Your task to perform on an android device: Empty the shopping cart on newegg. Add "macbook pro 13 inch" to the cart on newegg Image 0: 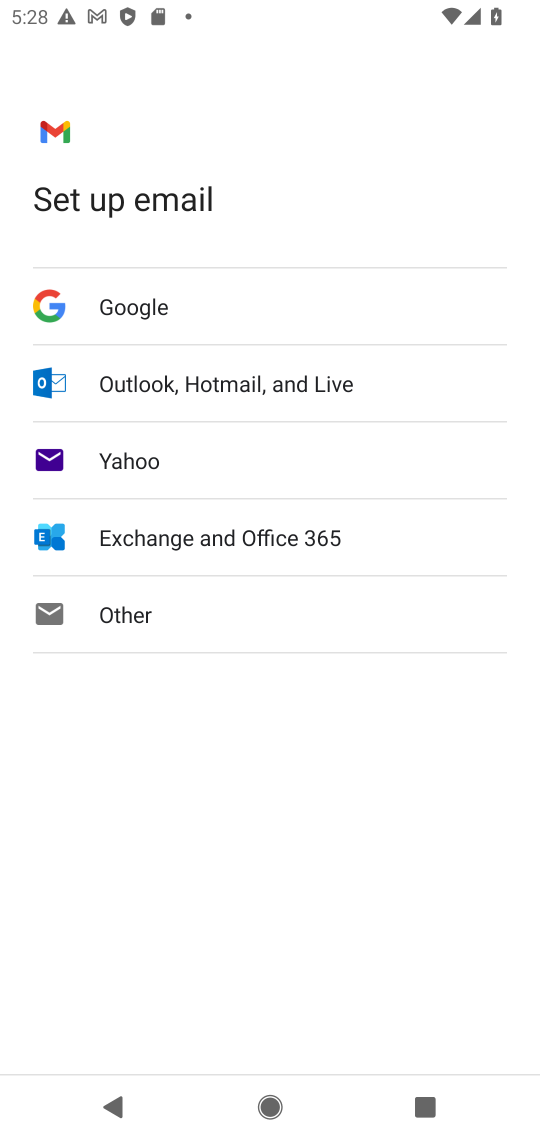
Step 0: press home button
Your task to perform on an android device: Empty the shopping cart on newegg. Add "macbook pro 13 inch" to the cart on newegg Image 1: 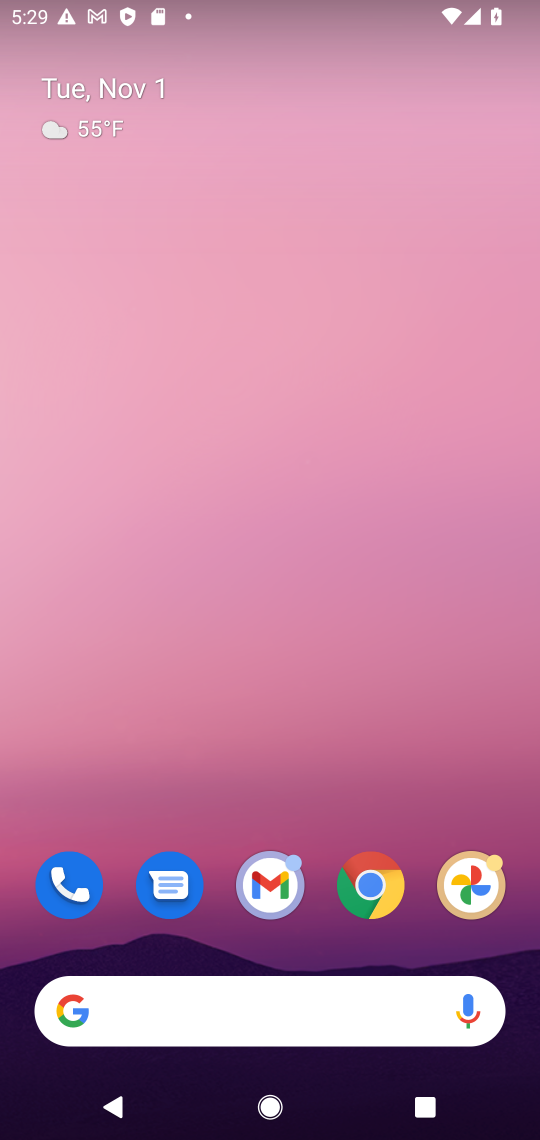
Step 1: click (369, 886)
Your task to perform on an android device: Empty the shopping cart on newegg. Add "macbook pro 13 inch" to the cart on newegg Image 2: 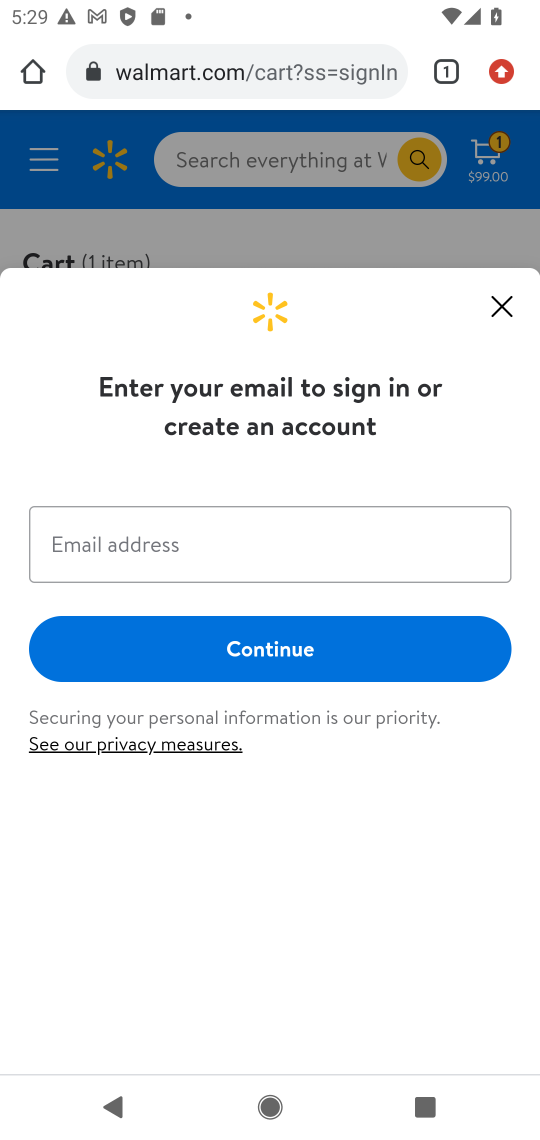
Step 2: click (261, 48)
Your task to perform on an android device: Empty the shopping cart on newegg. Add "macbook pro 13 inch" to the cart on newegg Image 3: 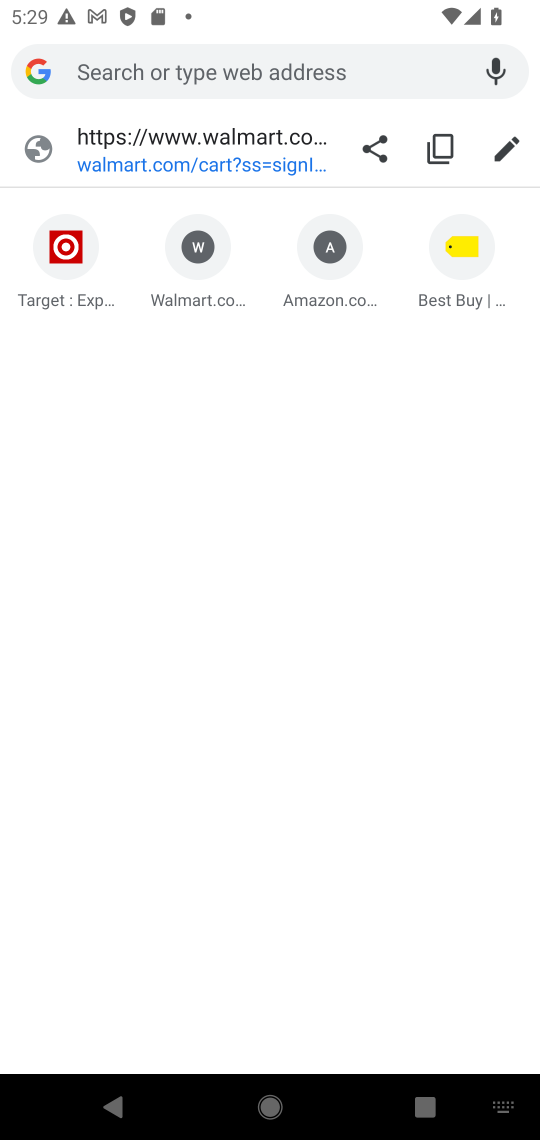
Step 3: type "newegg"
Your task to perform on an android device: Empty the shopping cart on newegg. Add "macbook pro 13 inch" to the cart on newegg Image 4: 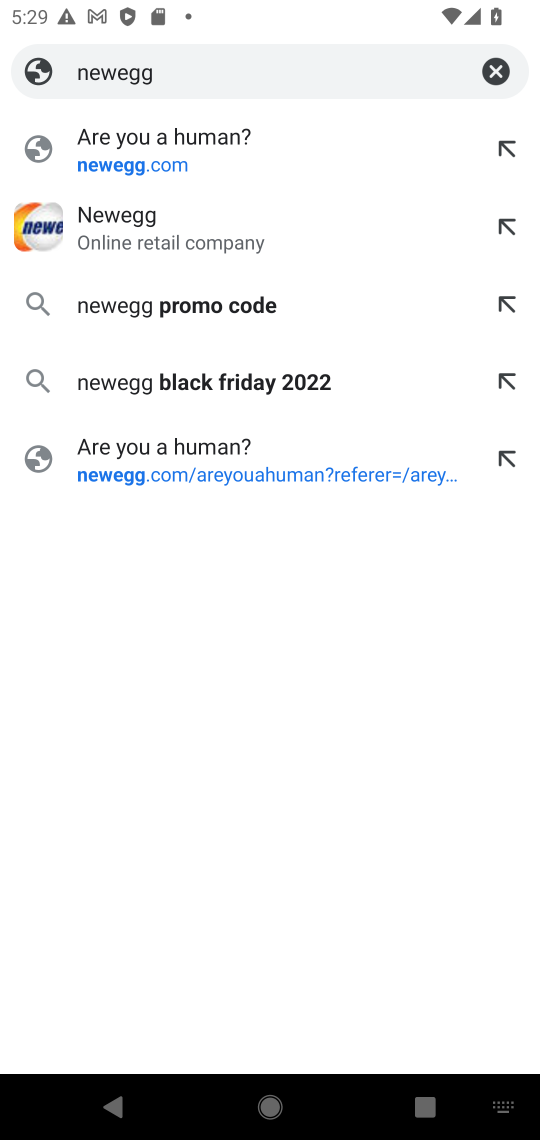
Step 4: click (140, 232)
Your task to perform on an android device: Empty the shopping cart on newegg. Add "macbook pro 13 inch" to the cart on newegg Image 5: 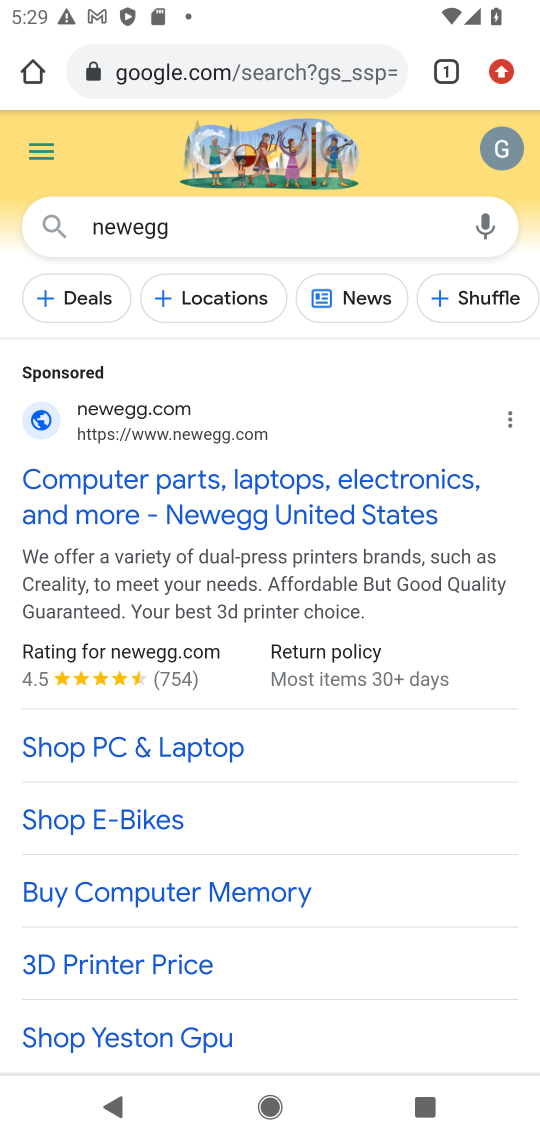
Step 5: click (80, 479)
Your task to perform on an android device: Empty the shopping cart on newegg. Add "macbook pro 13 inch" to the cart on newegg Image 6: 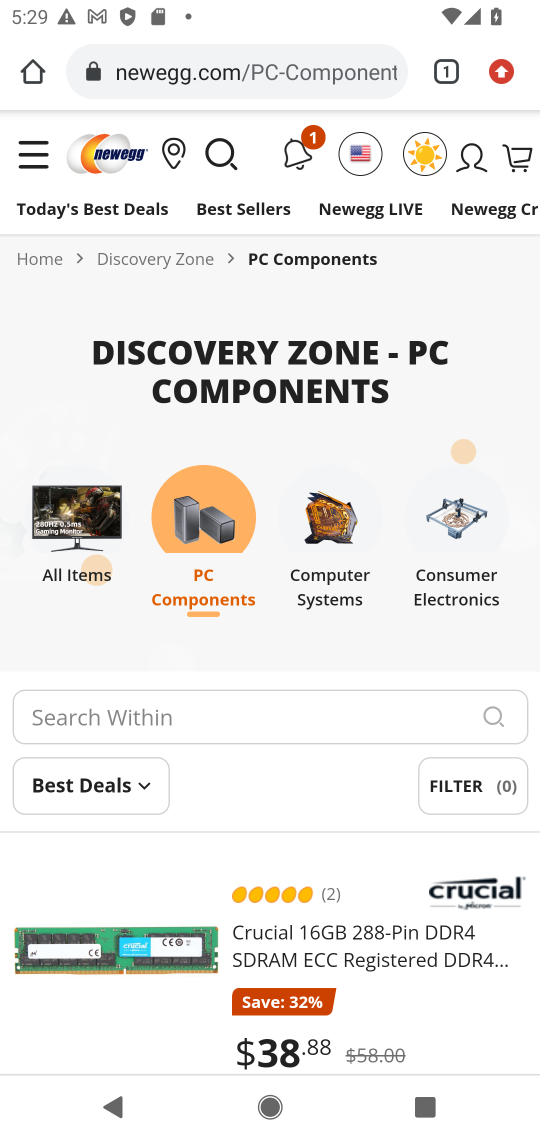
Step 6: drag from (338, 857) to (313, 462)
Your task to perform on an android device: Empty the shopping cart on newegg. Add "macbook pro 13 inch" to the cart on newegg Image 7: 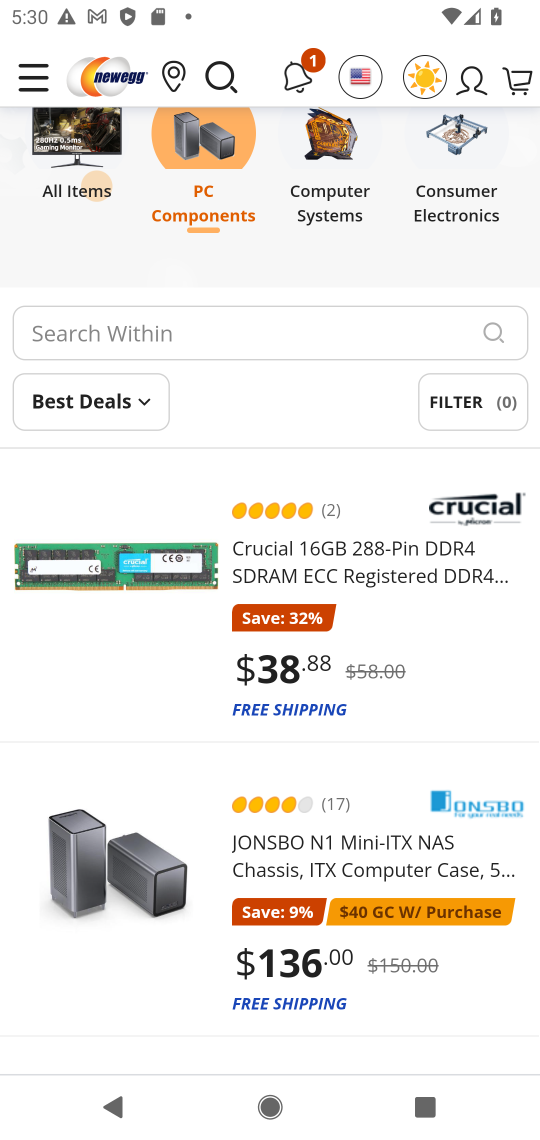
Step 7: click (100, 320)
Your task to perform on an android device: Empty the shopping cart on newegg. Add "macbook pro 13 inch" to the cart on newegg Image 8: 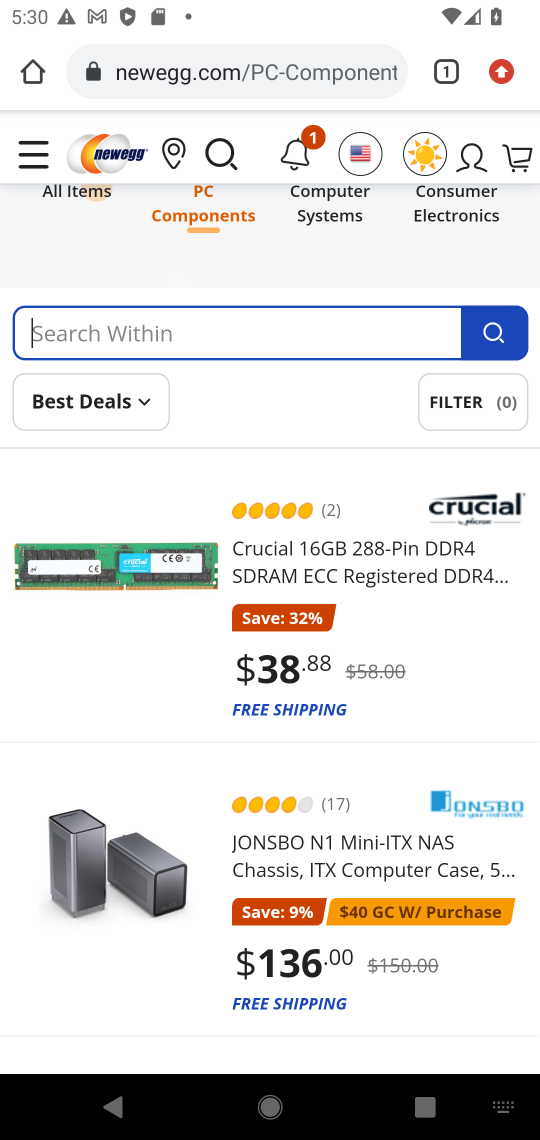
Step 8: click (516, 162)
Your task to perform on an android device: Empty the shopping cart on newegg. Add "macbook pro 13 inch" to the cart on newegg Image 9: 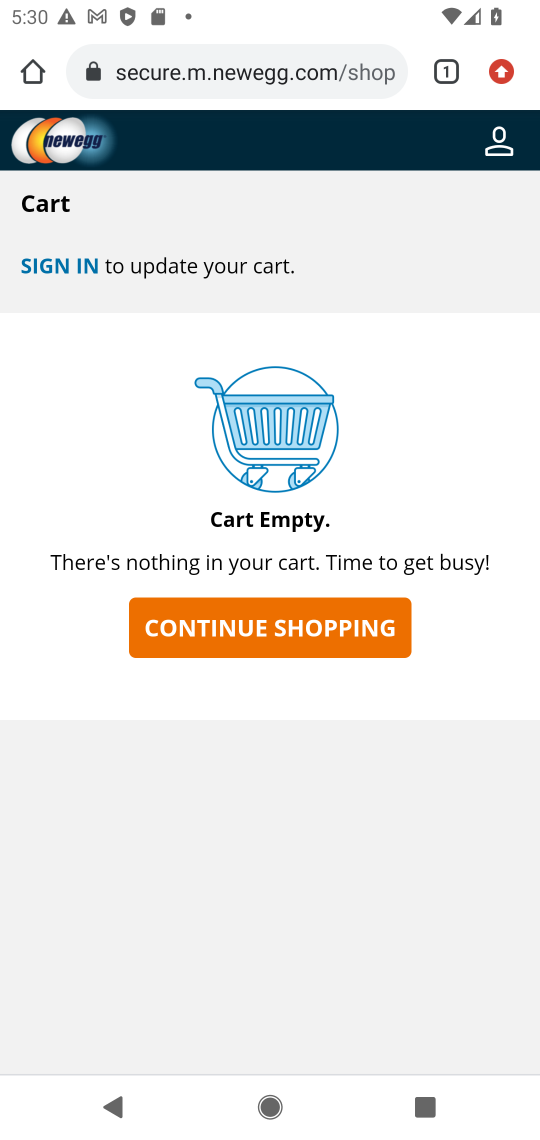
Step 9: drag from (300, 206) to (322, 484)
Your task to perform on an android device: Empty the shopping cart on newegg. Add "macbook pro 13 inch" to the cart on newegg Image 10: 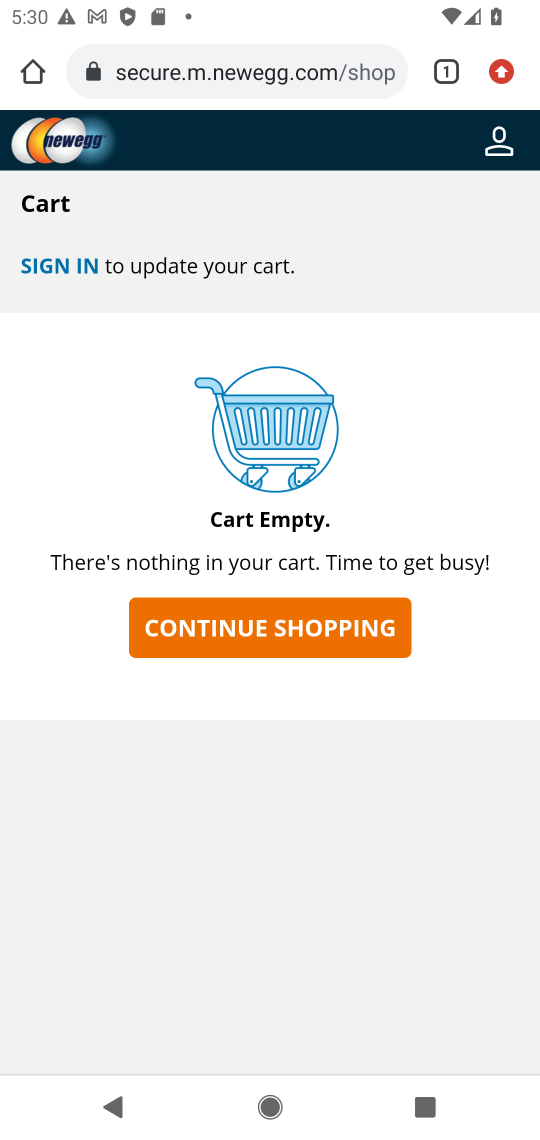
Step 10: click (260, 633)
Your task to perform on an android device: Empty the shopping cart on newegg. Add "macbook pro 13 inch" to the cart on newegg Image 11: 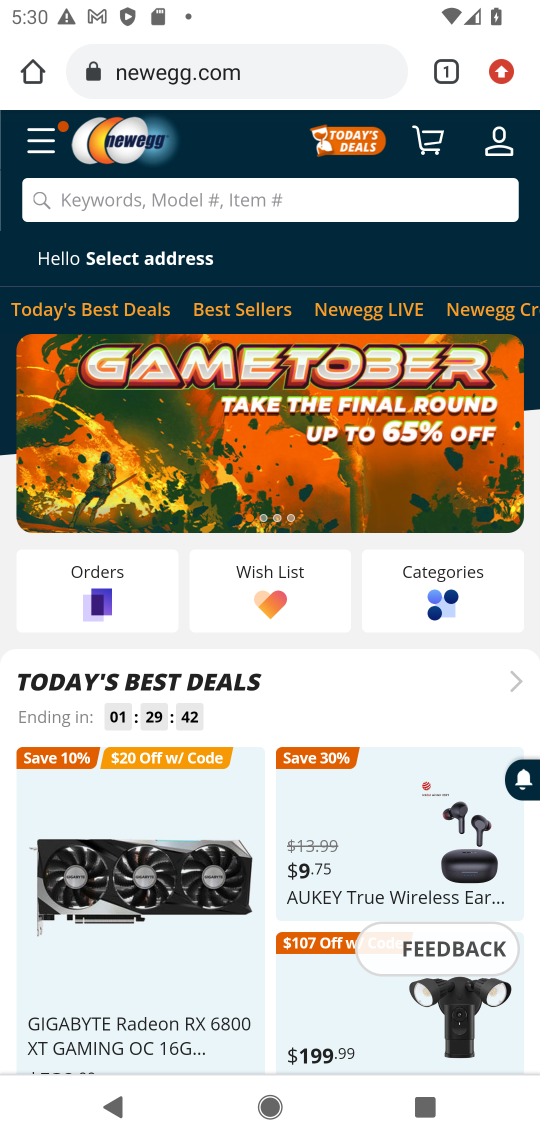
Step 11: click (135, 194)
Your task to perform on an android device: Empty the shopping cart on newegg. Add "macbook pro 13 inch" to the cart on newegg Image 12: 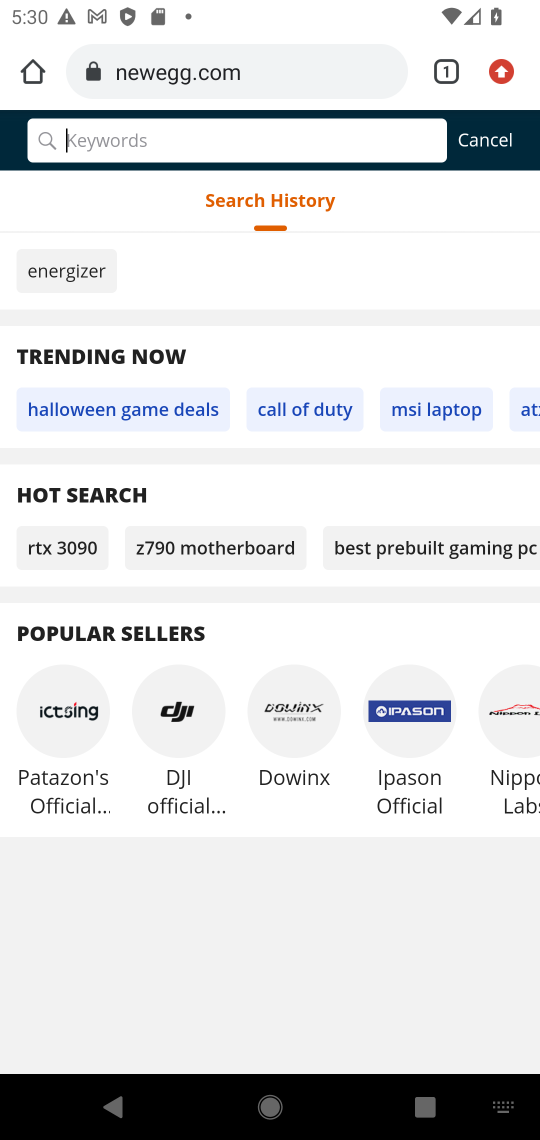
Step 12: type "macbook pro 13 inch"
Your task to perform on an android device: Empty the shopping cart on newegg. Add "macbook pro 13 inch" to the cart on newegg Image 13: 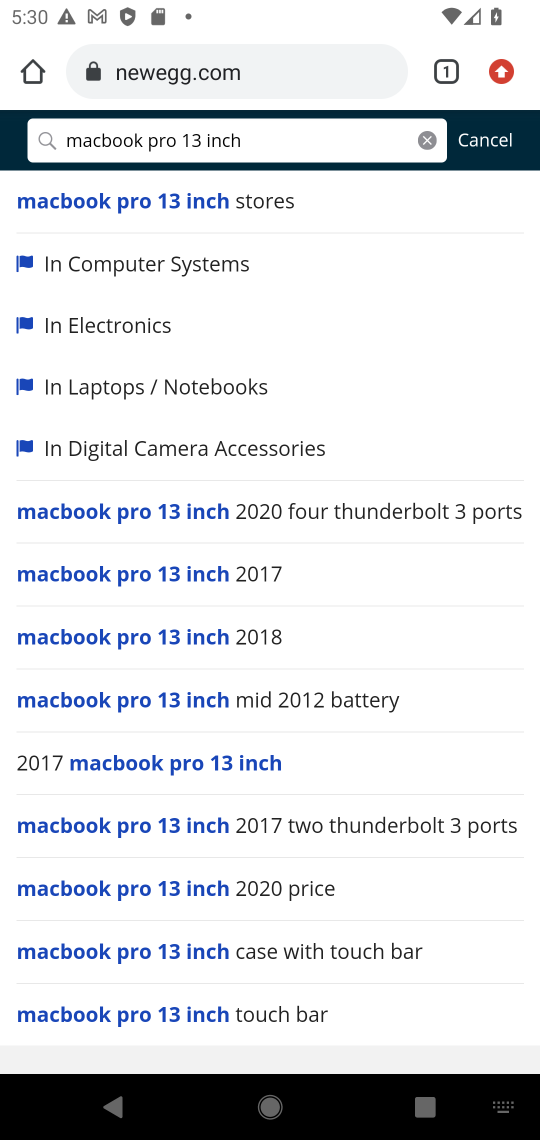
Step 13: click (81, 196)
Your task to perform on an android device: Empty the shopping cart on newegg. Add "macbook pro 13 inch" to the cart on newegg Image 14: 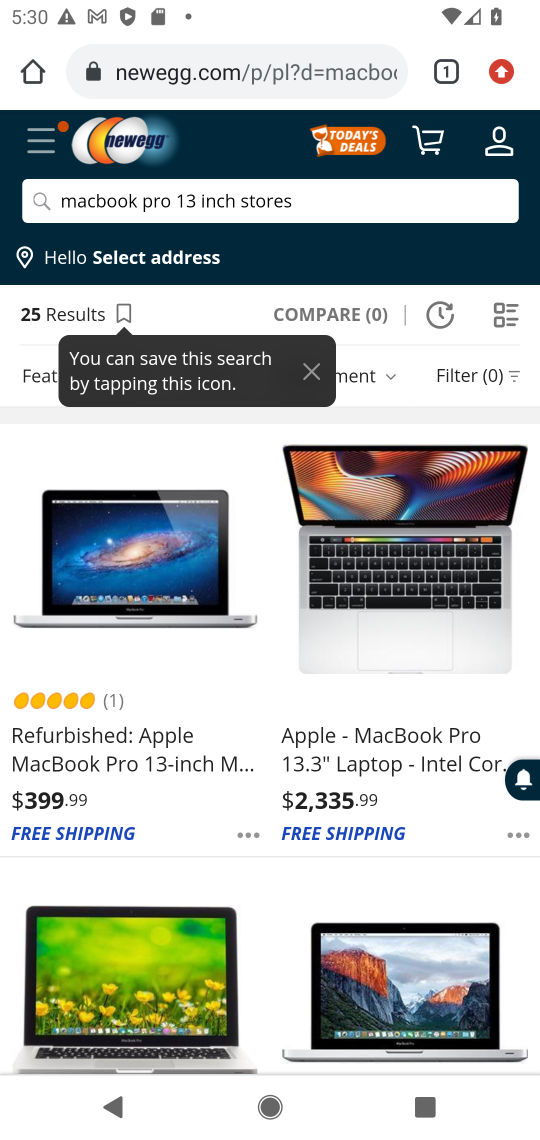
Step 14: click (76, 745)
Your task to perform on an android device: Empty the shopping cart on newegg. Add "macbook pro 13 inch" to the cart on newegg Image 15: 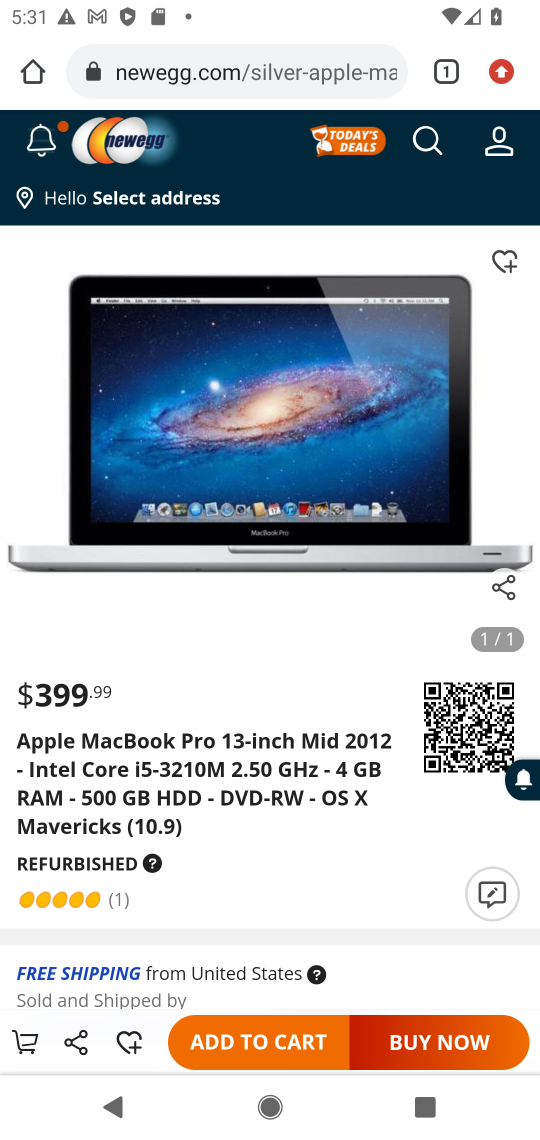
Step 15: press back button
Your task to perform on an android device: Empty the shopping cart on newegg. Add "macbook pro 13 inch" to the cart on newegg Image 16: 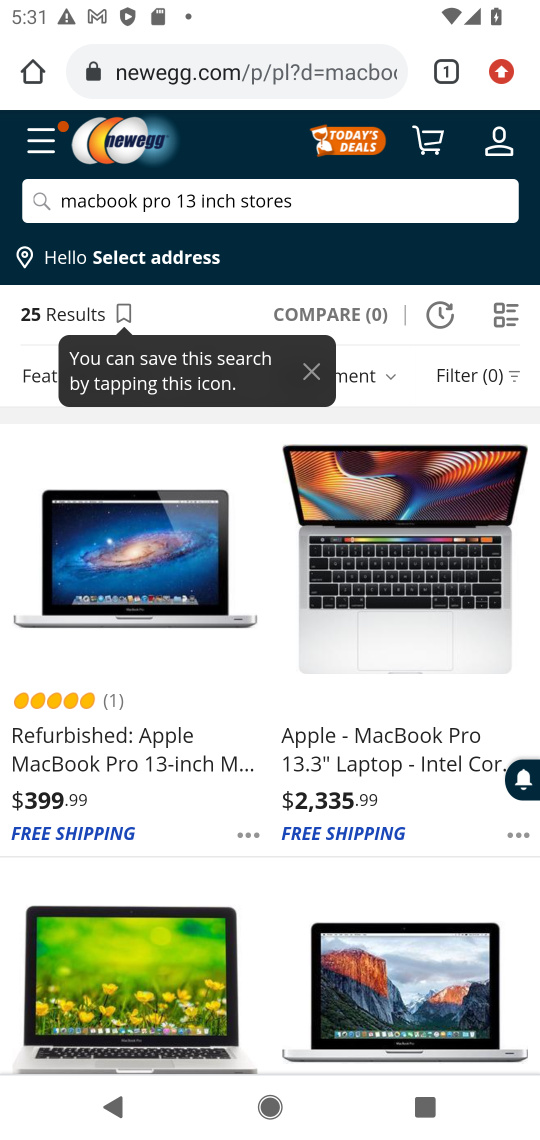
Step 16: click (406, 748)
Your task to perform on an android device: Empty the shopping cart on newegg. Add "macbook pro 13 inch" to the cart on newegg Image 17: 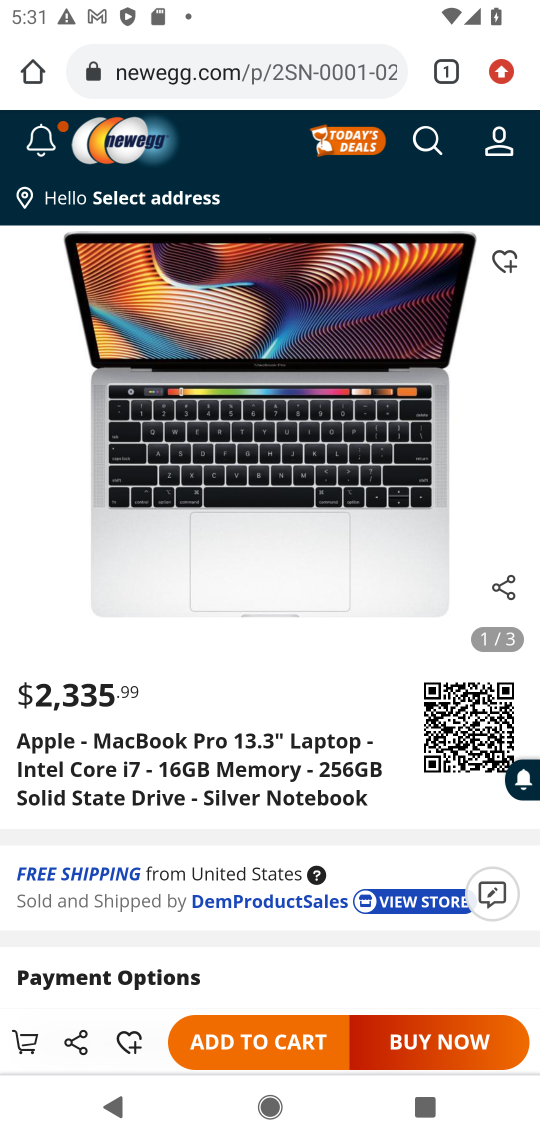
Step 17: click (249, 1035)
Your task to perform on an android device: Empty the shopping cart on newegg. Add "macbook pro 13 inch" to the cart on newegg Image 18: 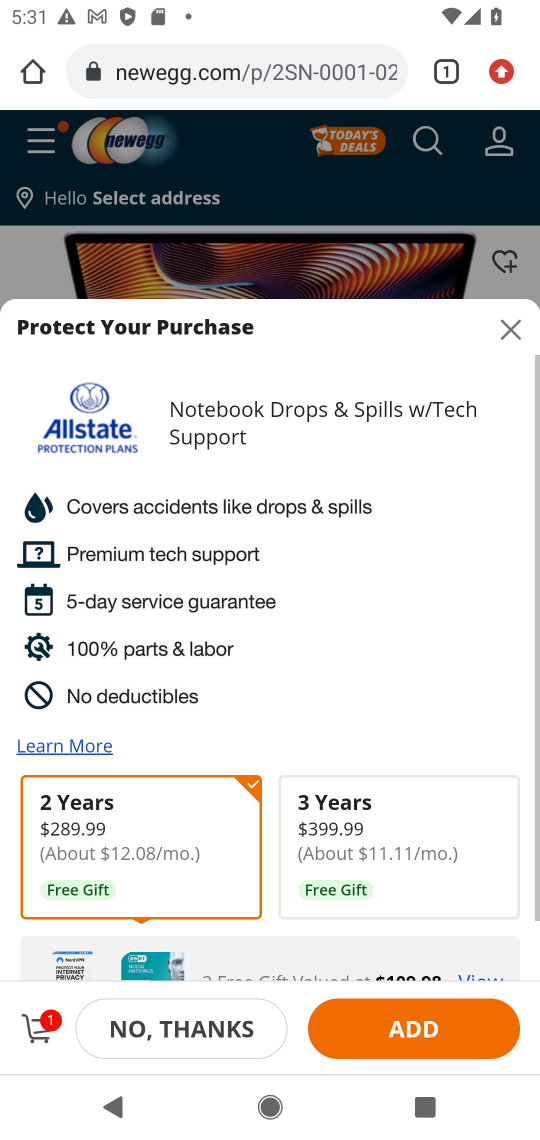
Step 18: click (407, 1025)
Your task to perform on an android device: Empty the shopping cart on newegg. Add "macbook pro 13 inch" to the cart on newegg Image 19: 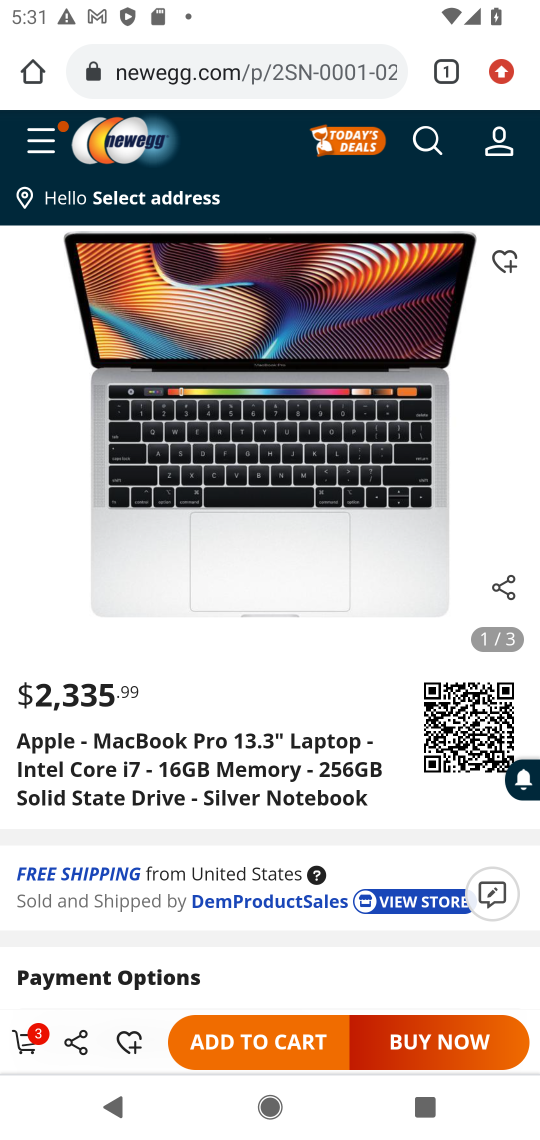
Step 19: task complete